Your task to perform on an android device: Search for Mexican restaurants on Maps Image 0: 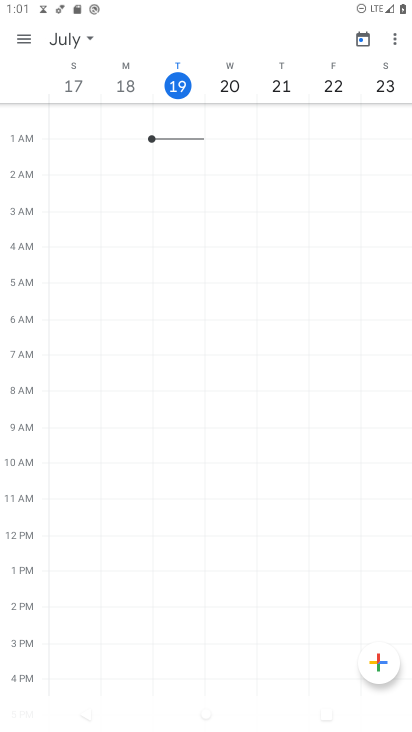
Step 0: press home button
Your task to perform on an android device: Search for Mexican restaurants on Maps Image 1: 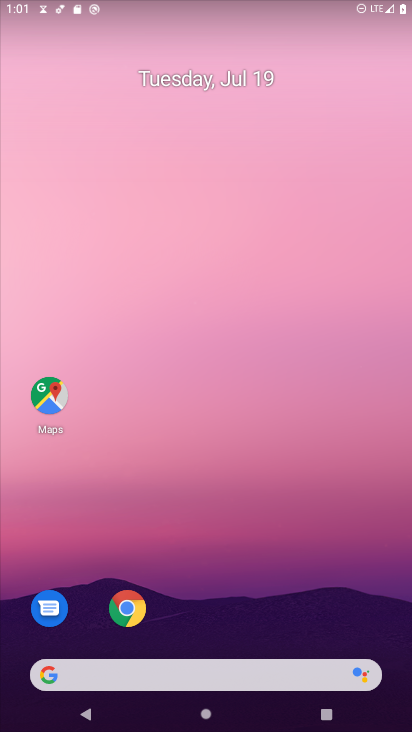
Step 1: drag from (173, 672) to (114, 58)
Your task to perform on an android device: Search for Mexican restaurants on Maps Image 2: 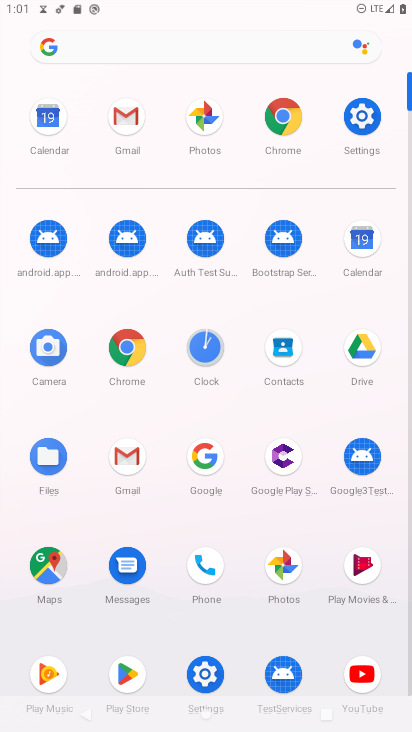
Step 2: click (53, 565)
Your task to perform on an android device: Search for Mexican restaurants on Maps Image 3: 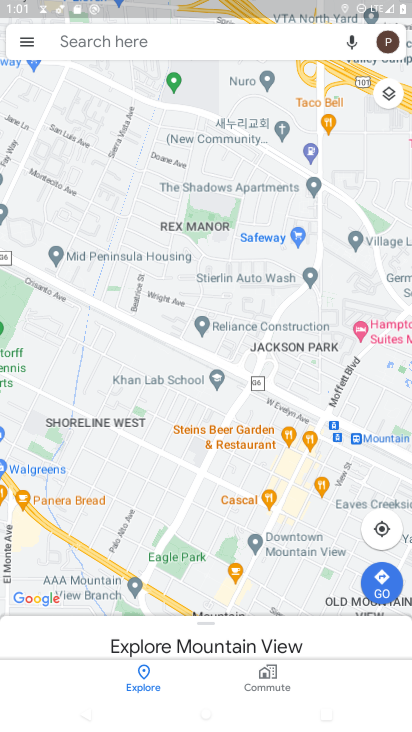
Step 3: click (170, 38)
Your task to perform on an android device: Search for Mexican restaurants on Maps Image 4: 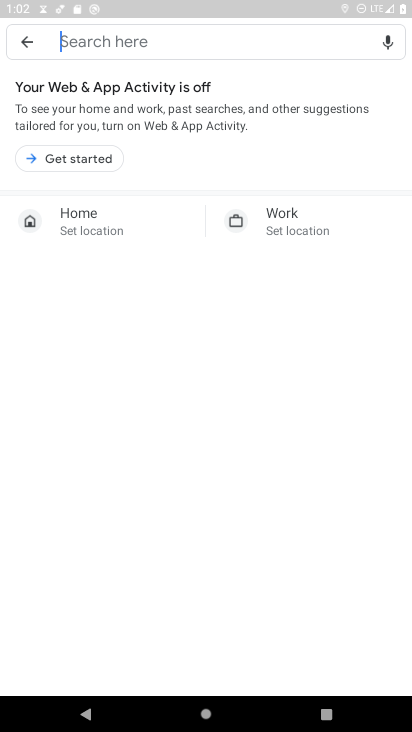
Step 4: type "itatalian restaurant"
Your task to perform on an android device: Search for Mexican restaurants on Maps Image 5: 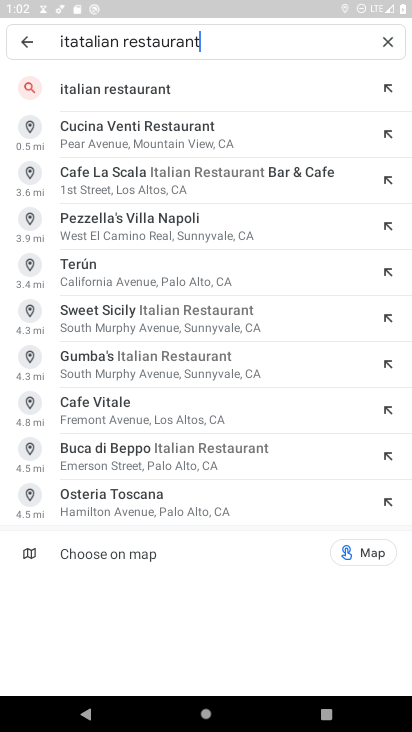
Step 5: click (204, 86)
Your task to perform on an android device: Search for Mexican restaurants on Maps Image 6: 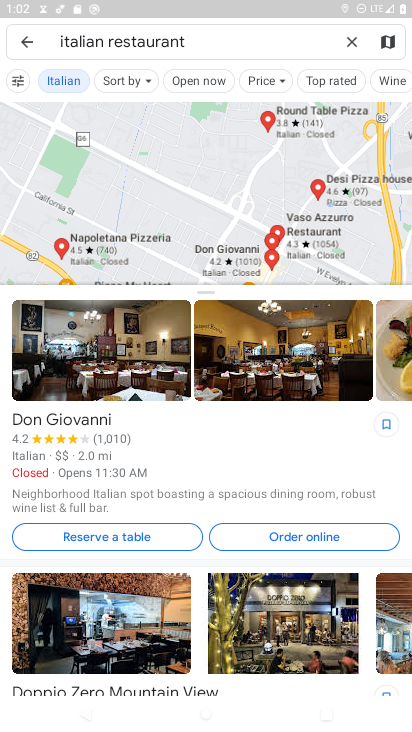
Step 6: press home button
Your task to perform on an android device: Search for Mexican restaurants on Maps Image 7: 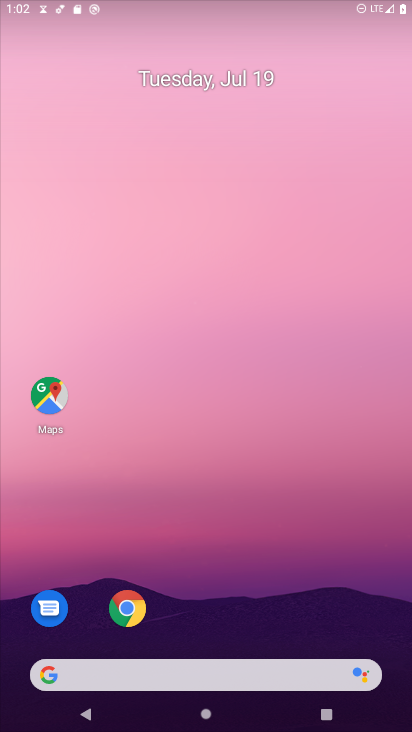
Step 7: drag from (280, 679) to (388, 0)
Your task to perform on an android device: Search for Mexican restaurants on Maps Image 8: 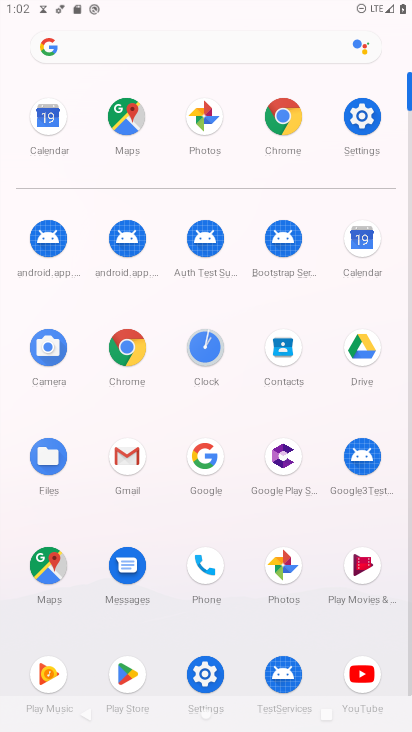
Step 8: click (53, 576)
Your task to perform on an android device: Search for Mexican restaurants on Maps Image 9: 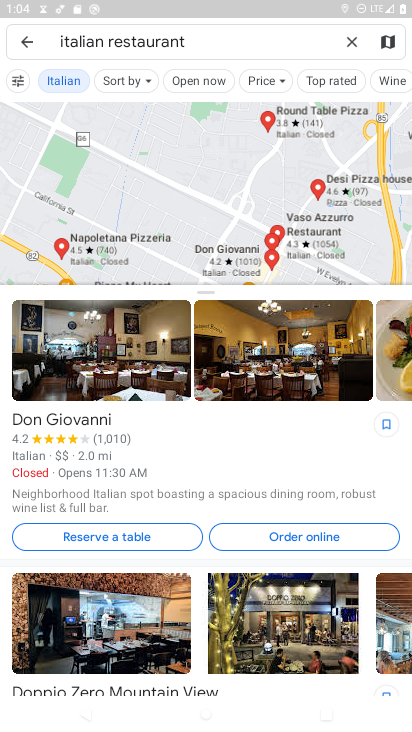
Step 9: click (354, 43)
Your task to perform on an android device: Search for Mexican restaurants on Maps Image 10: 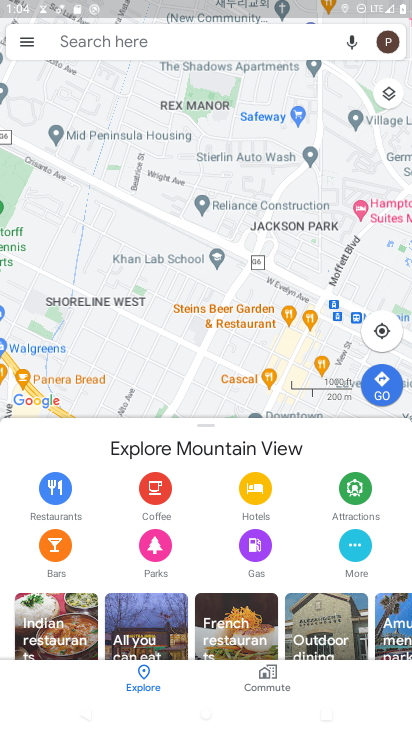
Step 10: click (310, 39)
Your task to perform on an android device: Search for Mexican restaurants on Maps Image 11: 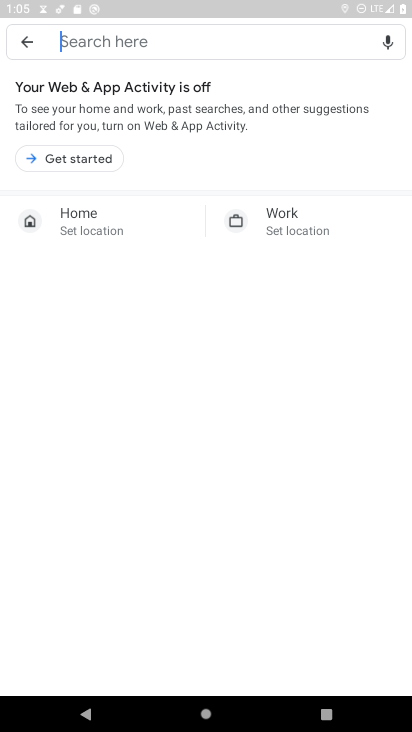
Step 11: type "mexican resataurant"
Your task to perform on an android device: Search for Mexican restaurants on Maps Image 12: 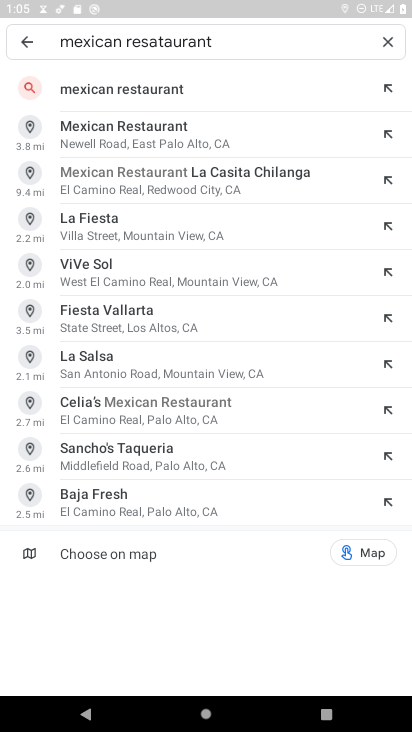
Step 12: click (194, 79)
Your task to perform on an android device: Search for Mexican restaurants on Maps Image 13: 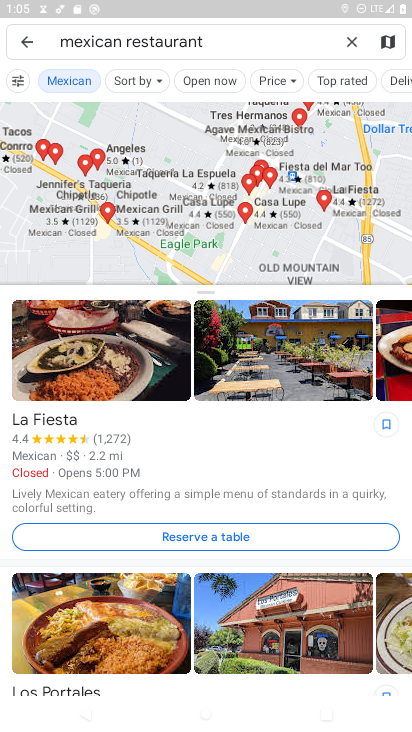
Step 13: task complete